Your task to perform on an android device: change your default location settings in chrome Image 0: 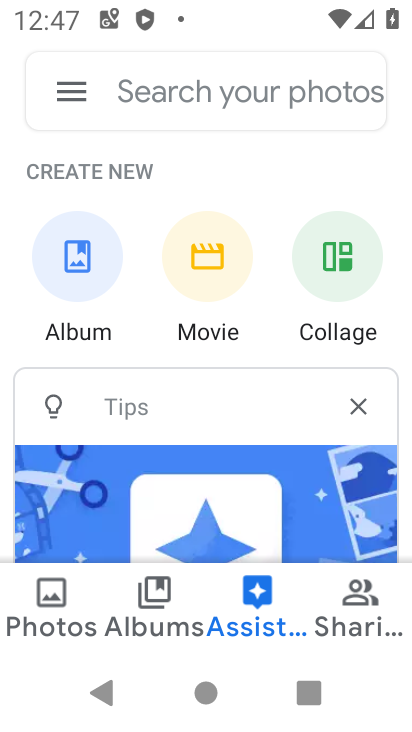
Step 0: press home button
Your task to perform on an android device: change your default location settings in chrome Image 1: 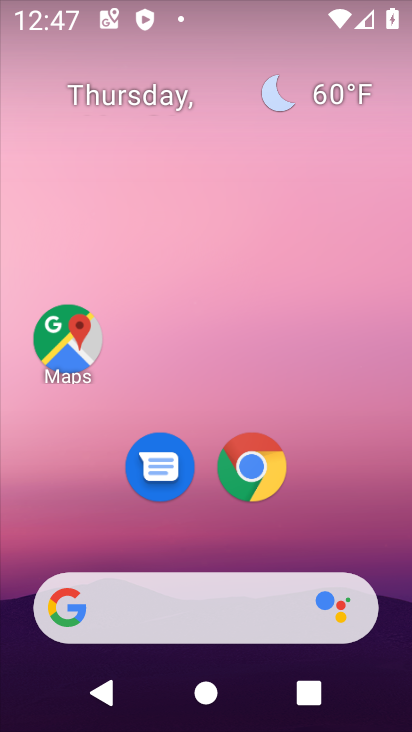
Step 1: drag from (201, 538) to (227, 35)
Your task to perform on an android device: change your default location settings in chrome Image 2: 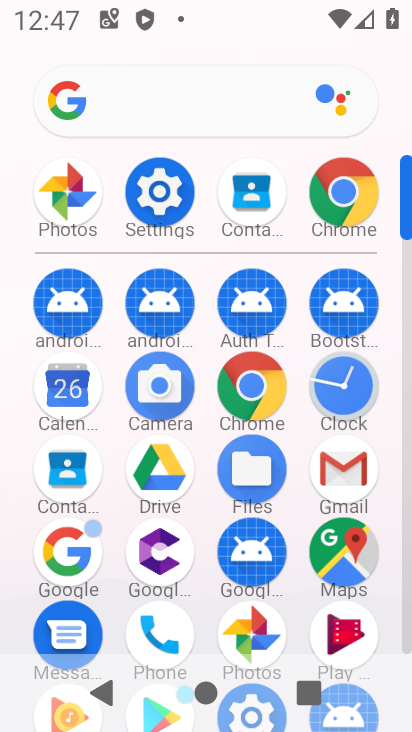
Step 2: click (264, 380)
Your task to perform on an android device: change your default location settings in chrome Image 3: 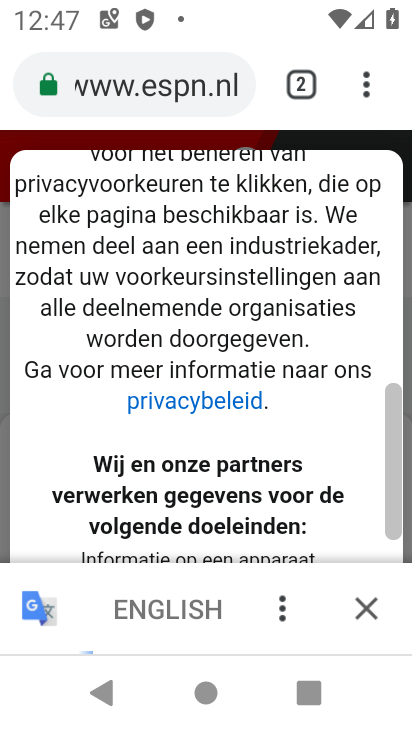
Step 3: click (369, 70)
Your task to perform on an android device: change your default location settings in chrome Image 4: 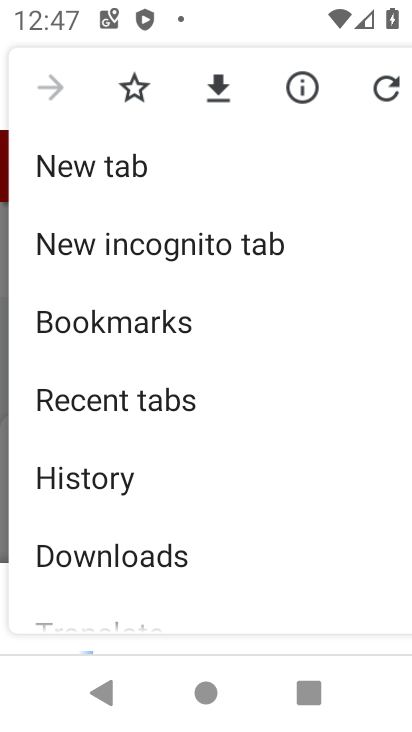
Step 4: drag from (114, 595) to (143, 386)
Your task to perform on an android device: change your default location settings in chrome Image 5: 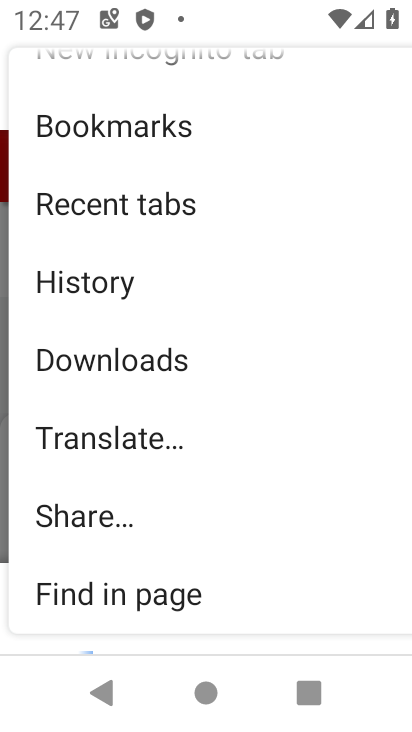
Step 5: drag from (117, 560) to (176, 335)
Your task to perform on an android device: change your default location settings in chrome Image 6: 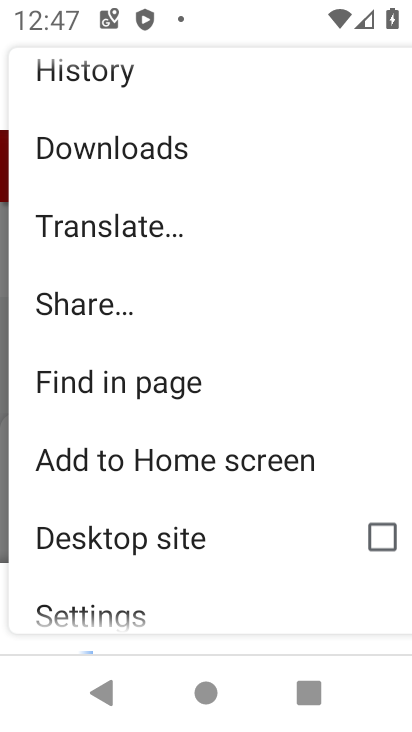
Step 6: drag from (169, 526) to (194, 342)
Your task to perform on an android device: change your default location settings in chrome Image 7: 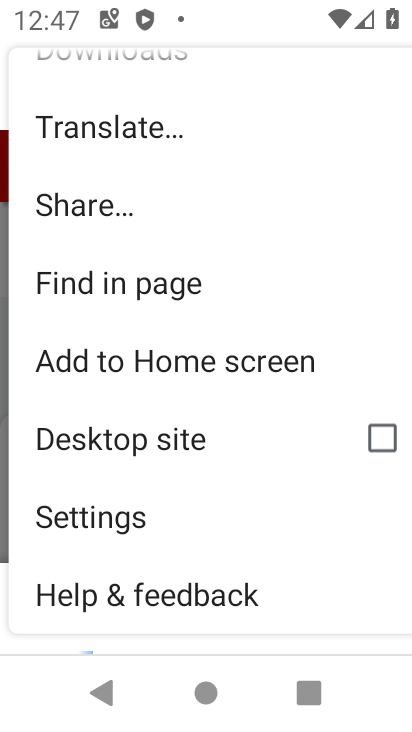
Step 7: click (118, 529)
Your task to perform on an android device: change your default location settings in chrome Image 8: 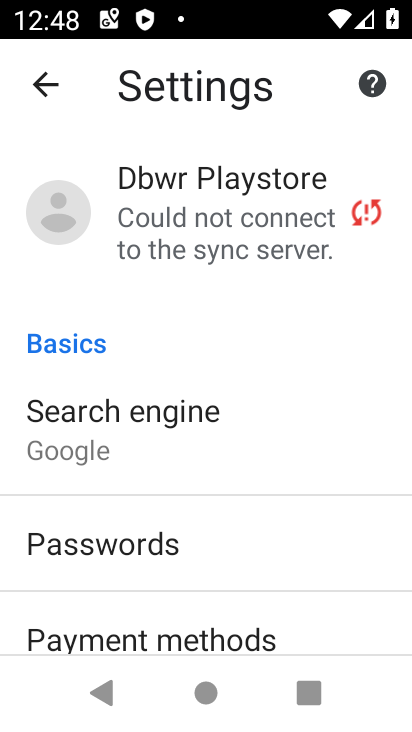
Step 8: drag from (170, 560) to (257, 142)
Your task to perform on an android device: change your default location settings in chrome Image 9: 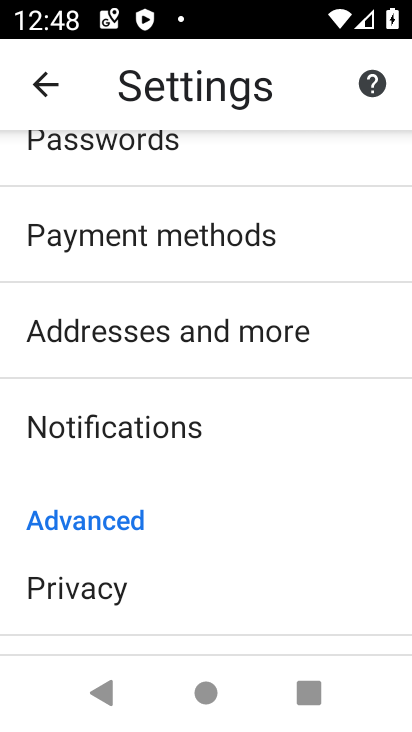
Step 9: drag from (131, 539) to (200, 183)
Your task to perform on an android device: change your default location settings in chrome Image 10: 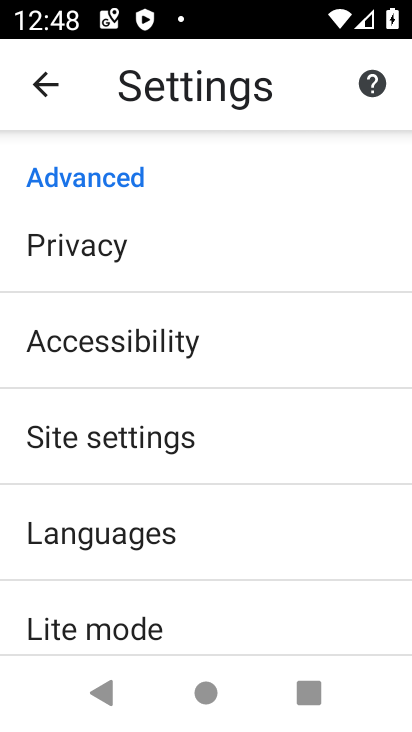
Step 10: click (127, 439)
Your task to perform on an android device: change your default location settings in chrome Image 11: 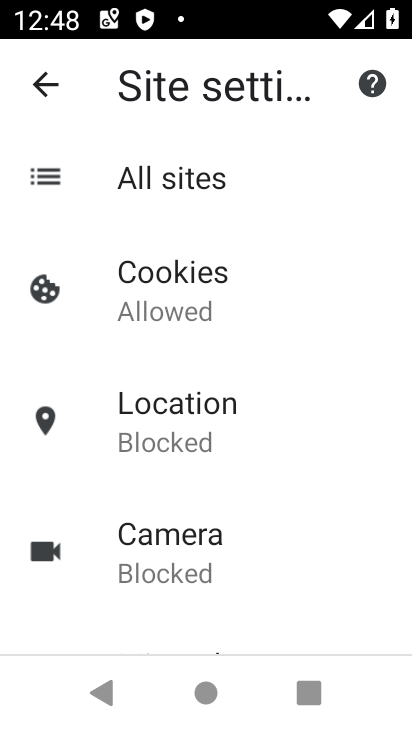
Step 11: drag from (149, 519) to (193, 268)
Your task to perform on an android device: change your default location settings in chrome Image 12: 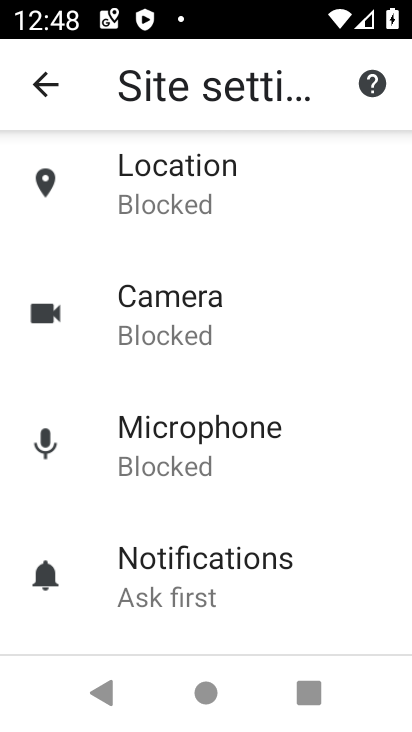
Step 12: drag from (171, 523) to (201, 313)
Your task to perform on an android device: change your default location settings in chrome Image 13: 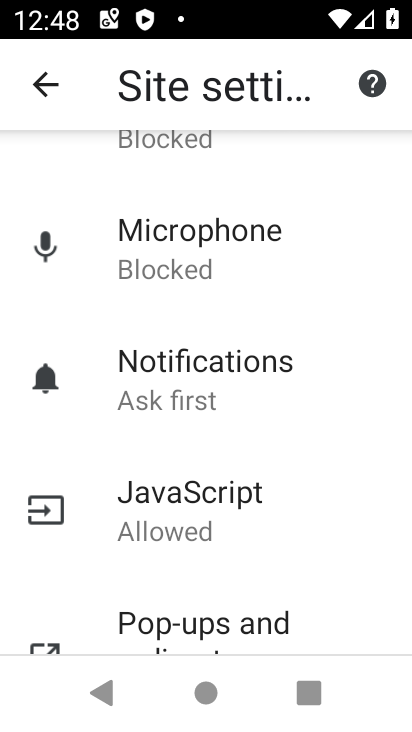
Step 13: drag from (169, 599) to (229, 340)
Your task to perform on an android device: change your default location settings in chrome Image 14: 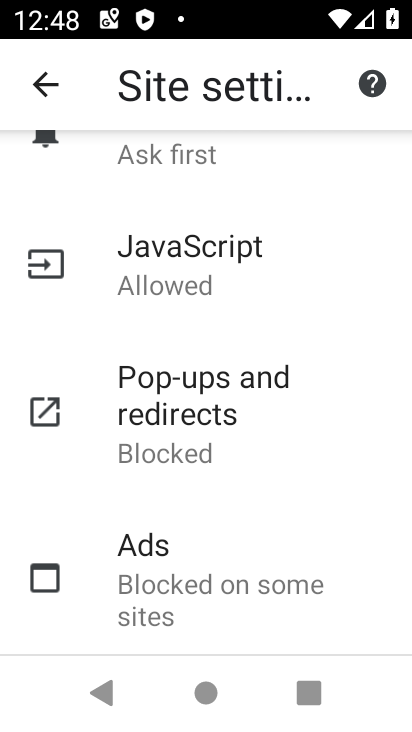
Step 14: drag from (239, 302) to (221, 657)
Your task to perform on an android device: change your default location settings in chrome Image 15: 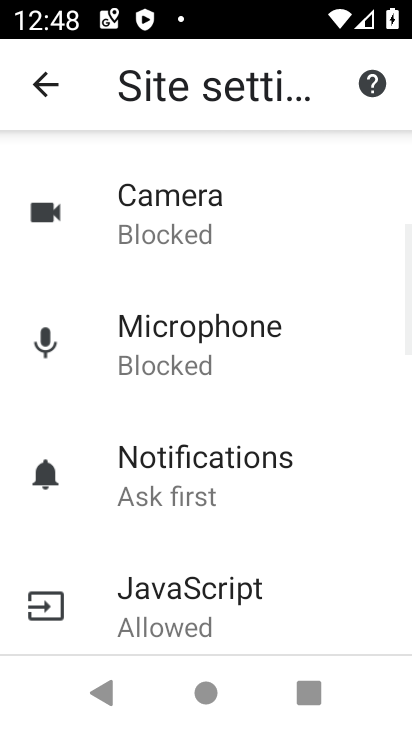
Step 15: drag from (213, 262) to (210, 484)
Your task to perform on an android device: change your default location settings in chrome Image 16: 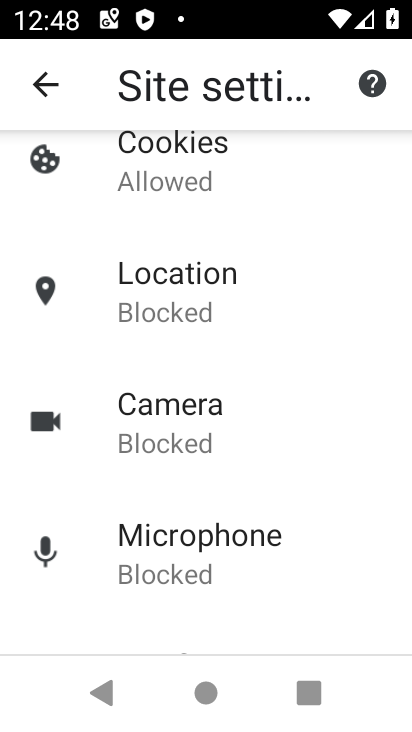
Step 16: click (183, 301)
Your task to perform on an android device: change your default location settings in chrome Image 17: 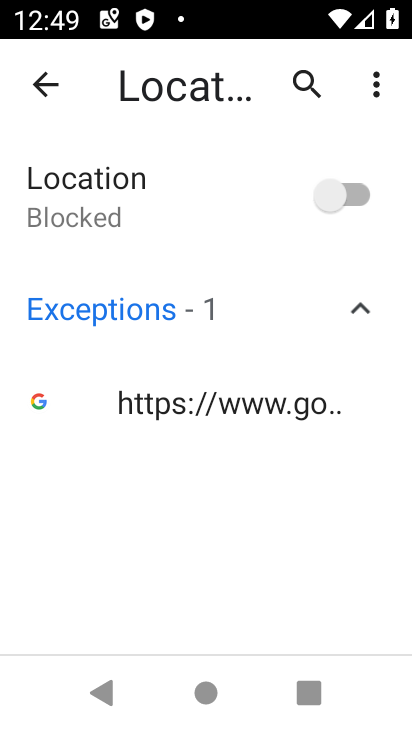
Step 17: click (353, 203)
Your task to perform on an android device: change your default location settings in chrome Image 18: 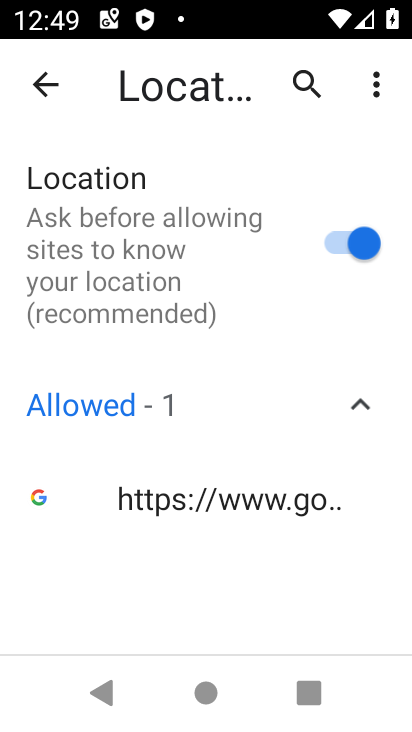
Step 18: task complete